Your task to perform on an android device: turn off javascript in the chrome app Image 0: 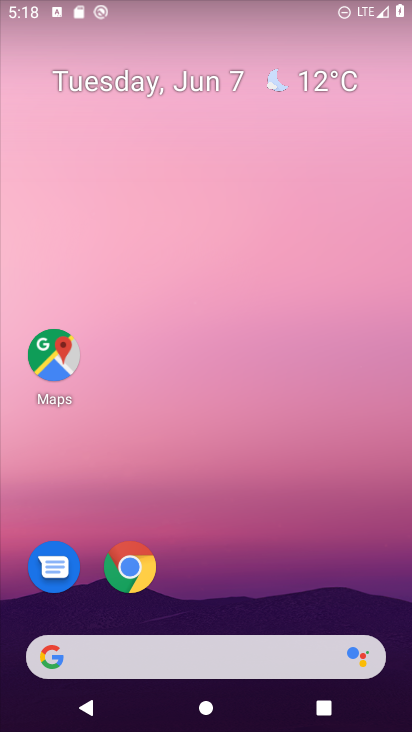
Step 0: drag from (310, 655) to (286, 94)
Your task to perform on an android device: turn off javascript in the chrome app Image 1: 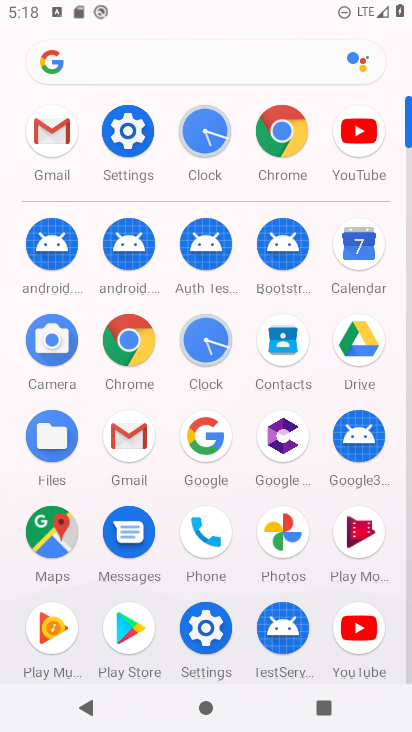
Step 1: click (126, 331)
Your task to perform on an android device: turn off javascript in the chrome app Image 2: 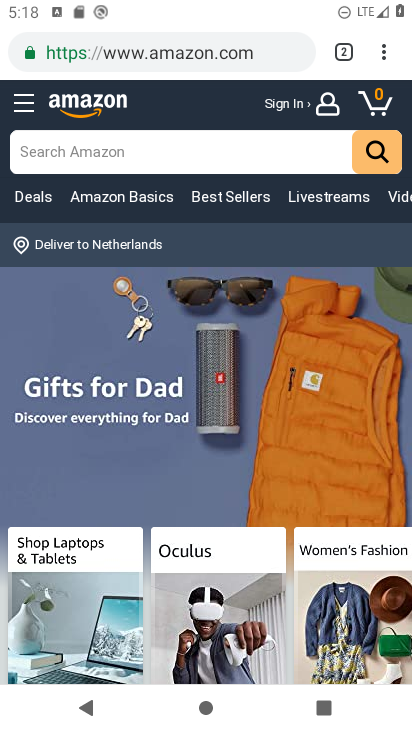
Step 2: drag from (382, 51) to (270, 608)
Your task to perform on an android device: turn off javascript in the chrome app Image 3: 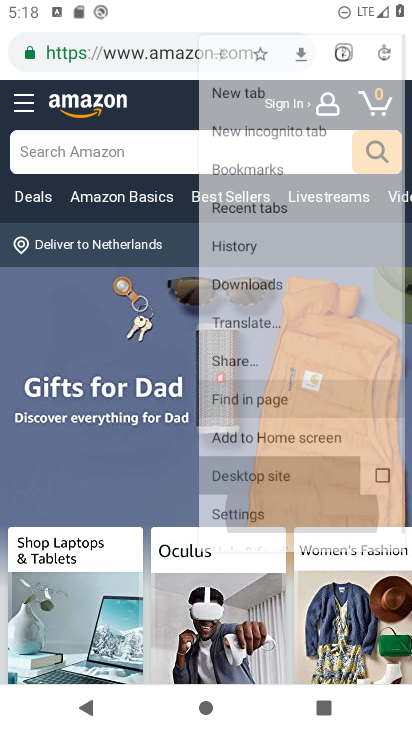
Step 3: click (261, 625)
Your task to perform on an android device: turn off javascript in the chrome app Image 4: 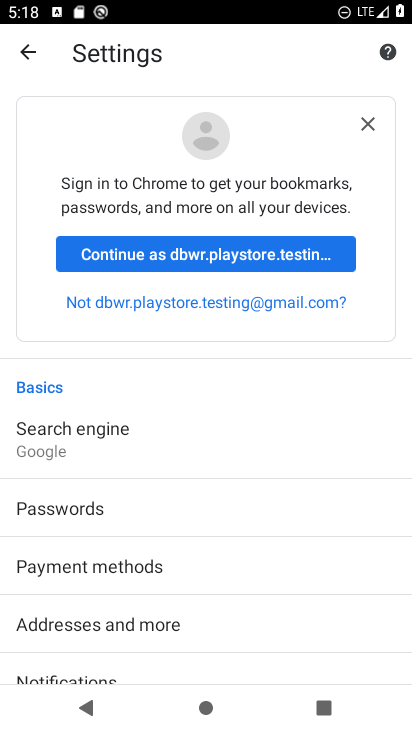
Step 4: drag from (241, 630) to (228, 124)
Your task to perform on an android device: turn off javascript in the chrome app Image 5: 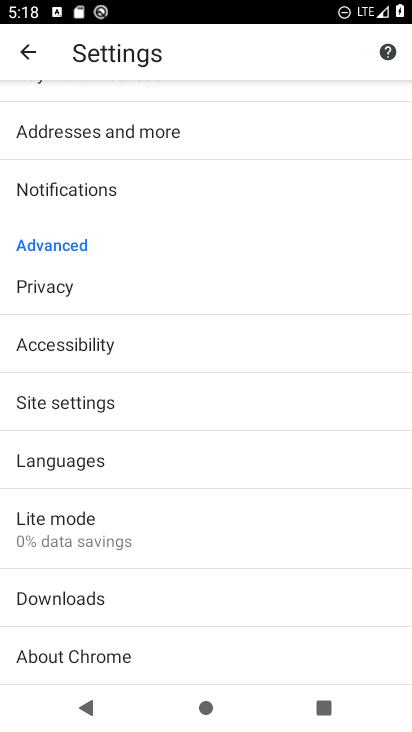
Step 5: click (82, 414)
Your task to perform on an android device: turn off javascript in the chrome app Image 6: 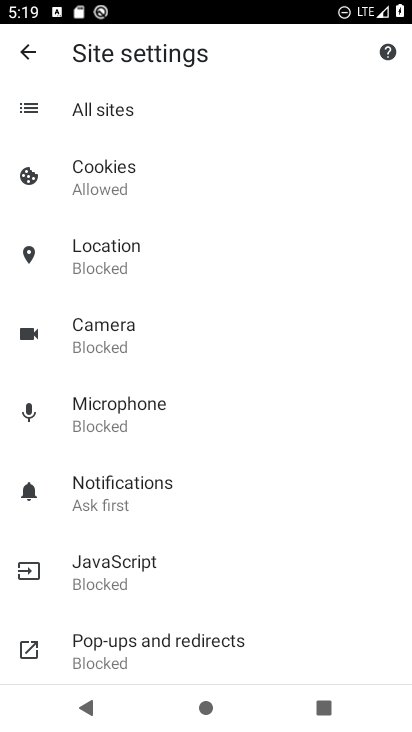
Step 6: click (139, 582)
Your task to perform on an android device: turn off javascript in the chrome app Image 7: 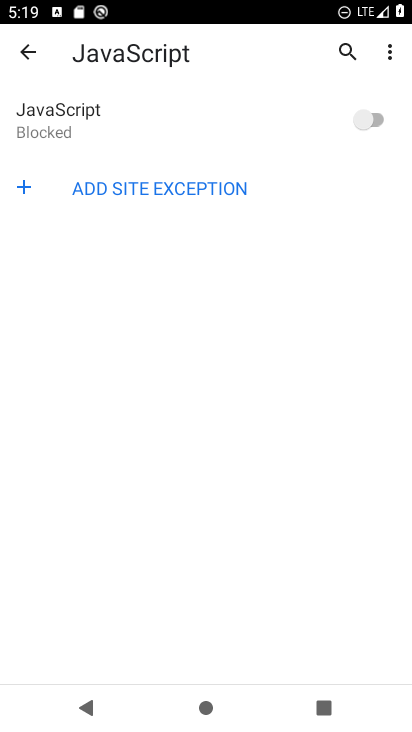
Step 7: task complete